Your task to perform on an android device: turn off javascript in the chrome app Image 0: 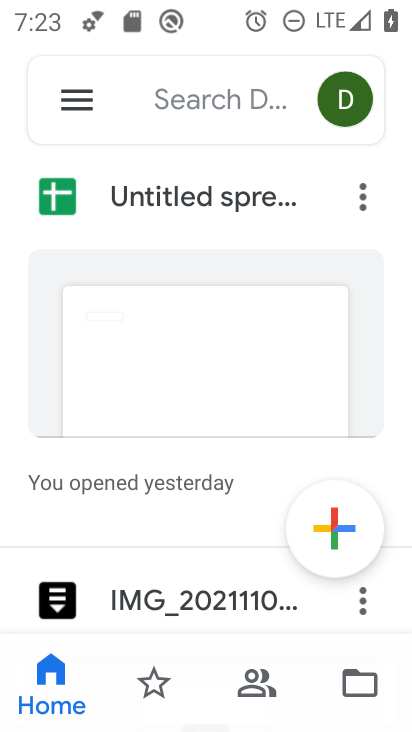
Step 0: press home button
Your task to perform on an android device: turn off javascript in the chrome app Image 1: 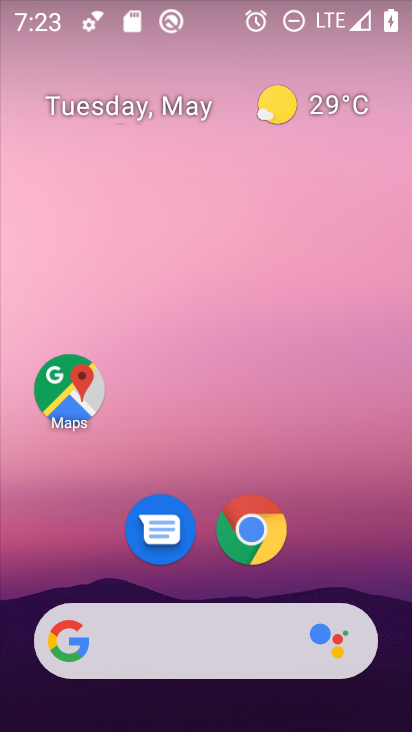
Step 1: drag from (397, 647) to (228, 57)
Your task to perform on an android device: turn off javascript in the chrome app Image 2: 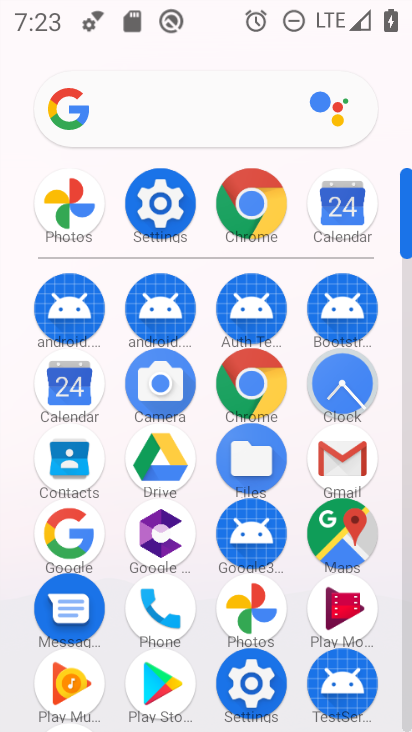
Step 2: click (245, 195)
Your task to perform on an android device: turn off javascript in the chrome app Image 3: 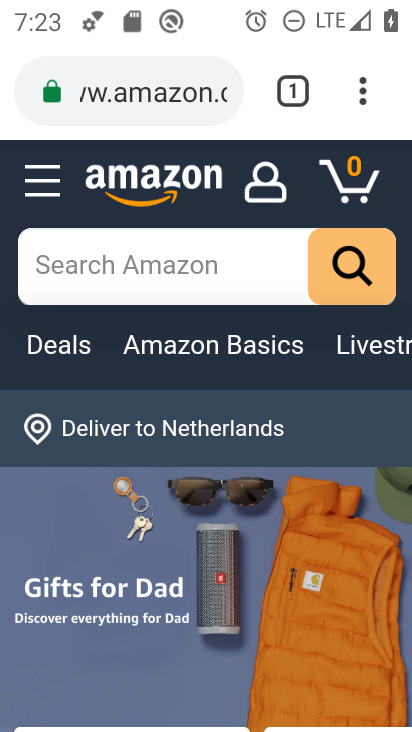
Step 3: press back button
Your task to perform on an android device: turn off javascript in the chrome app Image 4: 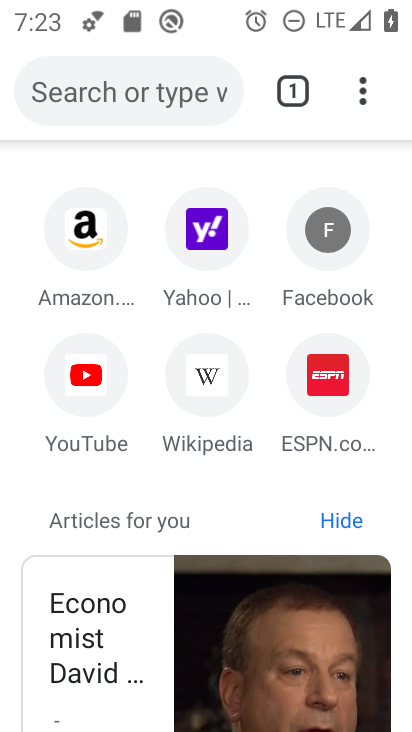
Step 4: click (366, 84)
Your task to perform on an android device: turn off javascript in the chrome app Image 5: 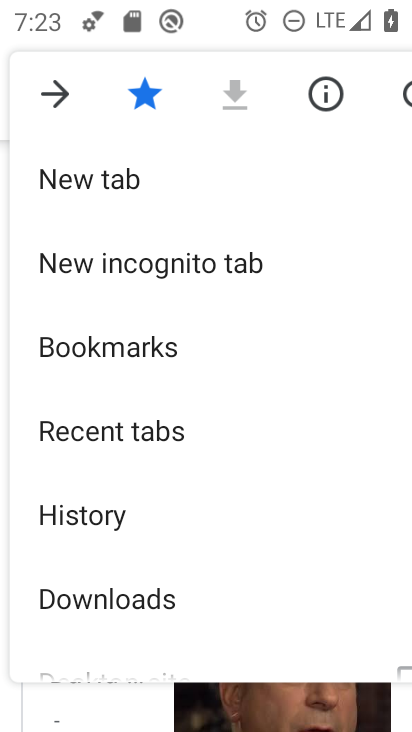
Step 5: drag from (127, 617) to (197, 133)
Your task to perform on an android device: turn off javascript in the chrome app Image 6: 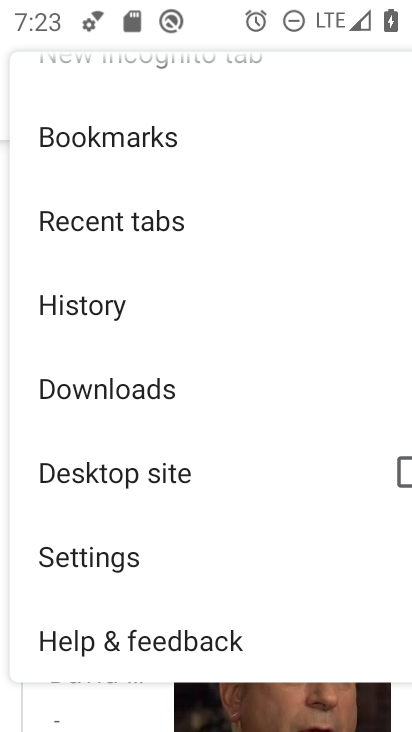
Step 6: click (154, 554)
Your task to perform on an android device: turn off javascript in the chrome app Image 7: 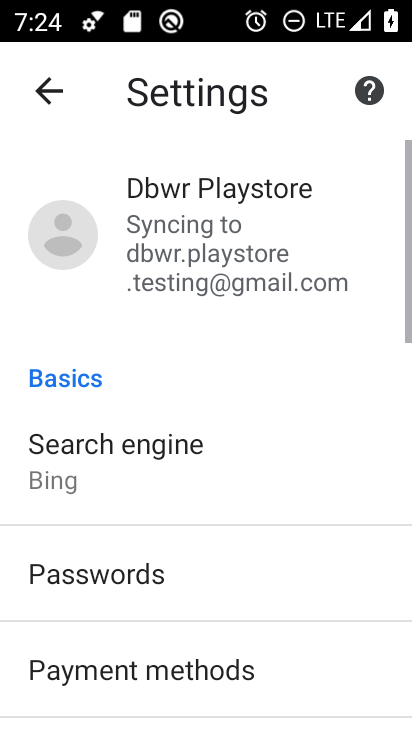
Step 7: drag from (193, 648) to (188, 82)
Your task to perform on an android device: turn off javascript in the chrome app Image 8: 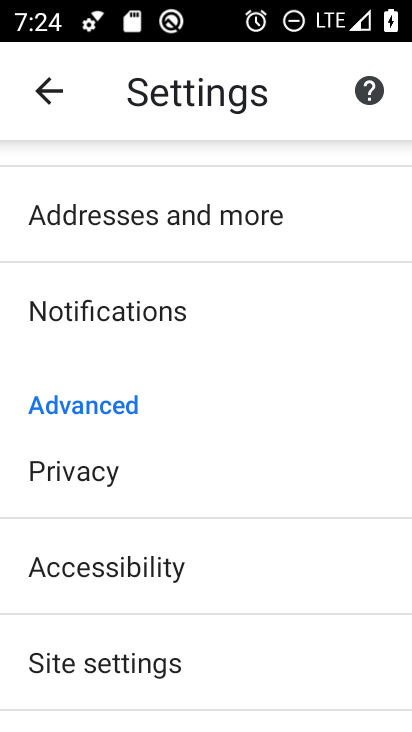
Step 8: click (139, 664)
Your task to perform on an android device: turn off javascript in the chrome app Image 9: 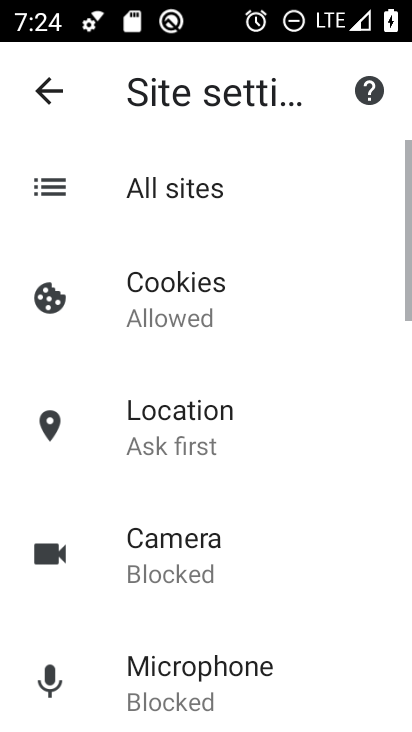
Step 9: drag from (139, 658) to (151, 232)
Your task to perform on an android device: turn off javascript in the chrome app Image 10: 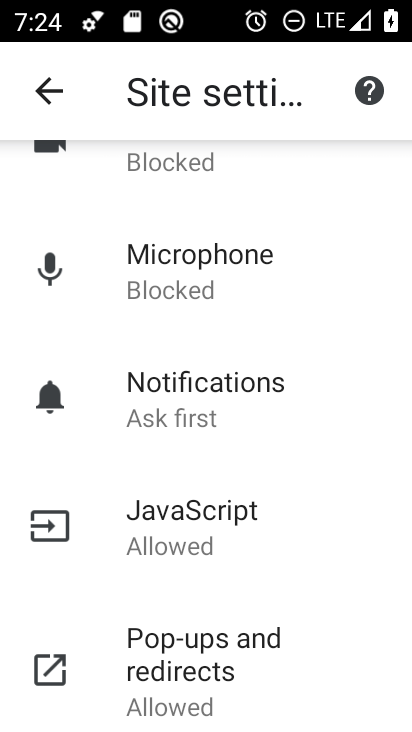
Step 10: click (235, 518)
Your task to perform on an android device: turn off javascript in the chrome app Image 11: 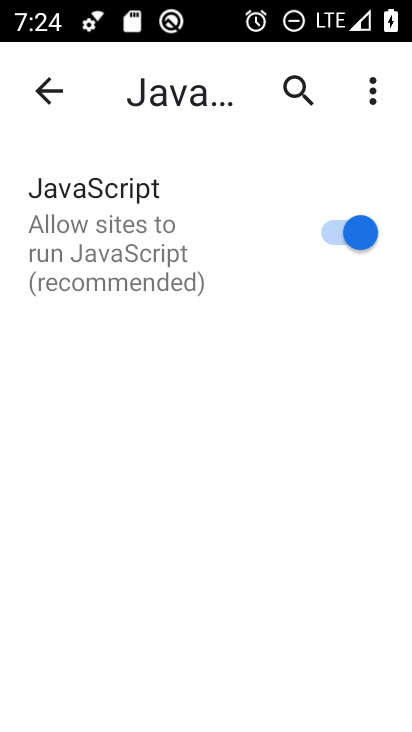
Step 11: click (357, 232)
Your task to perform on an android device: turn off javascript in the chrome app Image 12: 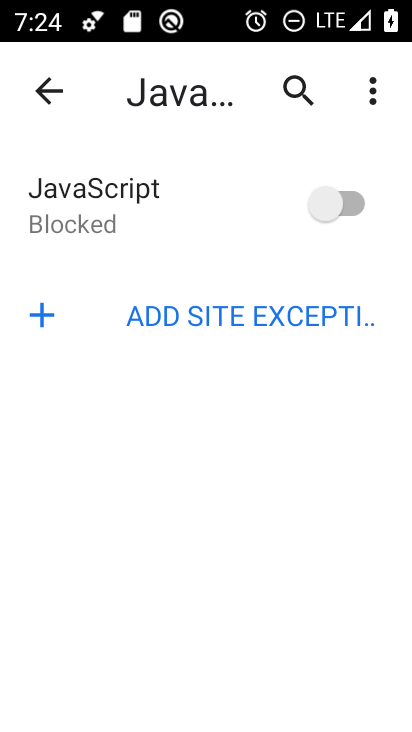
Step 12: task complete